Your task to perform on an android device: see tabs open on other devices in the chrome app Image 0: 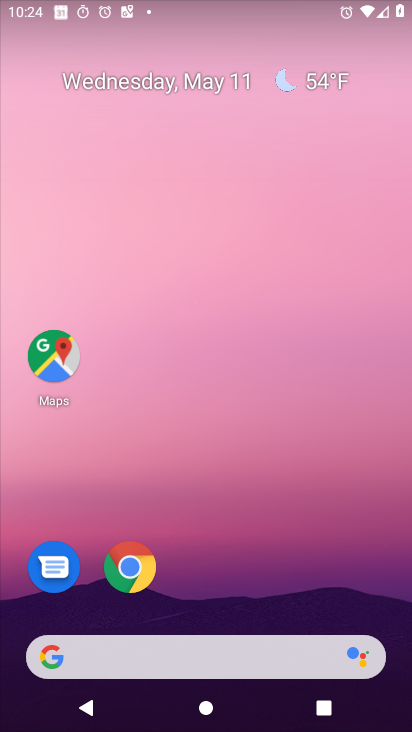
Step 0: click (119, 554)
Your task to perform on an android device: see tabs open on other devices in the chrome app Image 1: 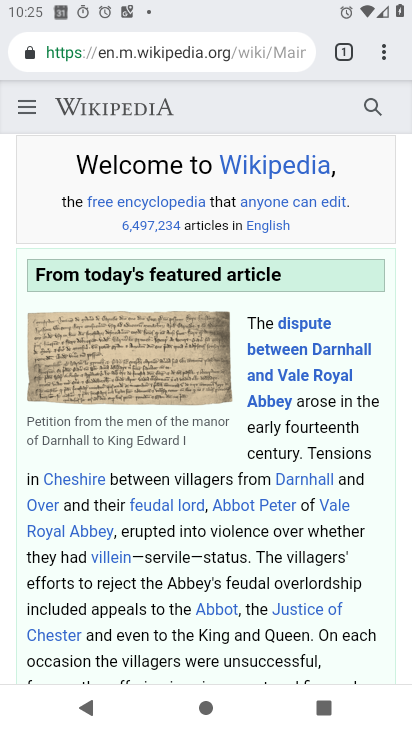
Step 1: click (385, 57)
Your task to perform on an android device: see tabs open on other devices in the chrome app Image 2: 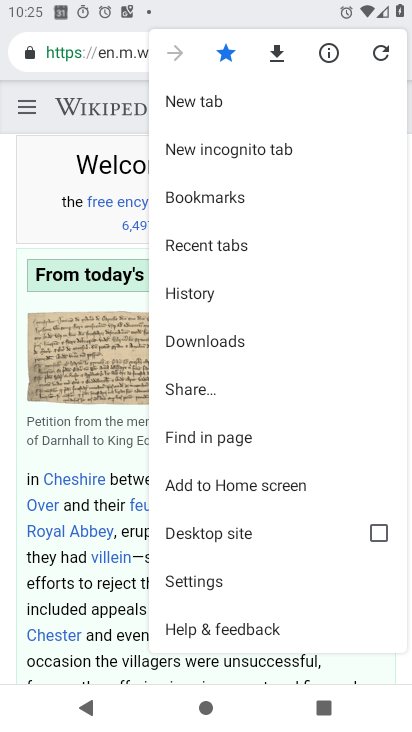
Step 2: click (238, 232)
Your task to perform on an android device: see tabs open on other devices in the chrome app Image 3: 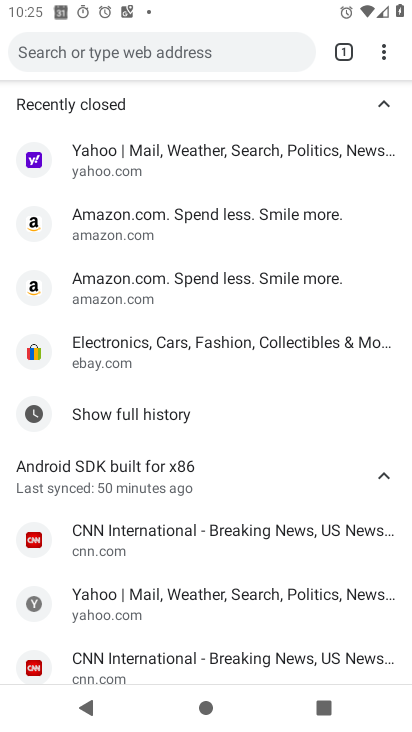
Step 3: task complete